Your task to perform on an android device: What's on my calendar today? Image 0: 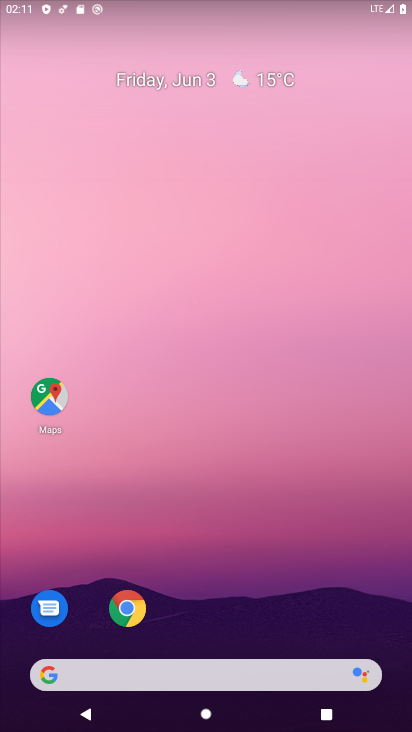
Step 0: drag from (259, 565) to (258, 194)
Your task to perform on an android device: What's on my calendar today? Image 1: 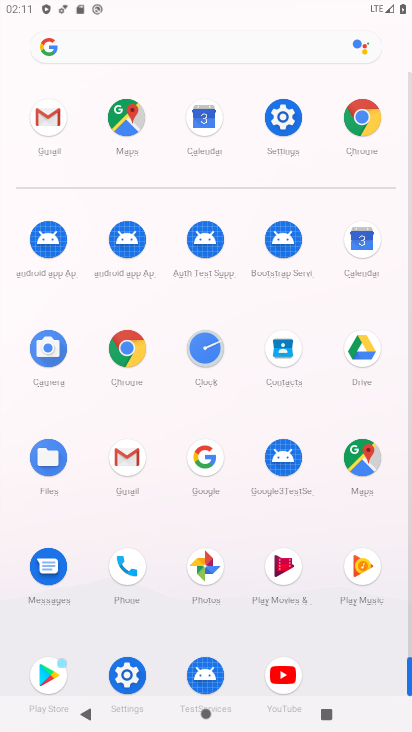
Step 1: click (358, 255)
Your task to perform on an android device: What's on my calendar today? Image 2: 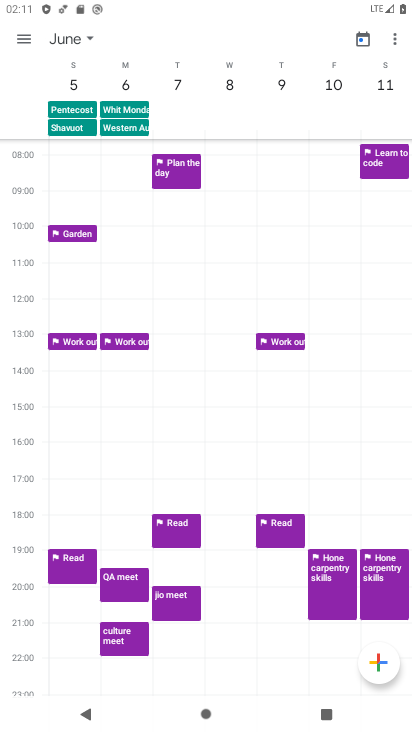
Step 2: drag from (77, 90) to (323, 98)
Your task to perform on an android device: What's on my calendar today? Image 3: 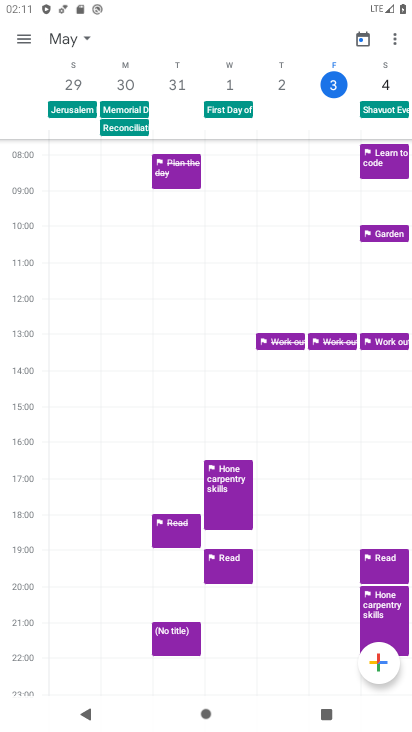
Step 3: click (317, 79)
Your task to perform on an android device: What's on my calendar today? Image 4: 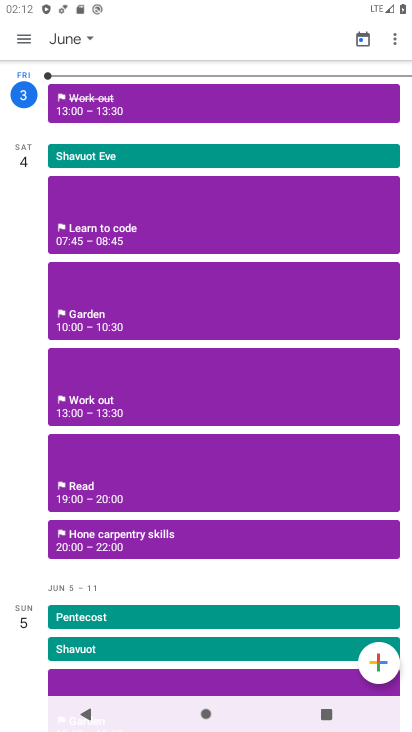
Step 4: task complete